Your task to perform on an android device: turn off javascript in the chrome app Image 0: 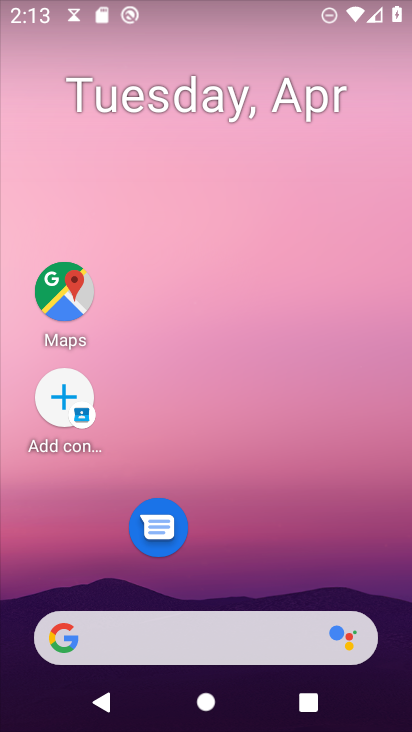
Step 0: drag from (264, 568) to (182, 97)
Your task to perform on an android device: turn off javascript in the chrome app Image 1: 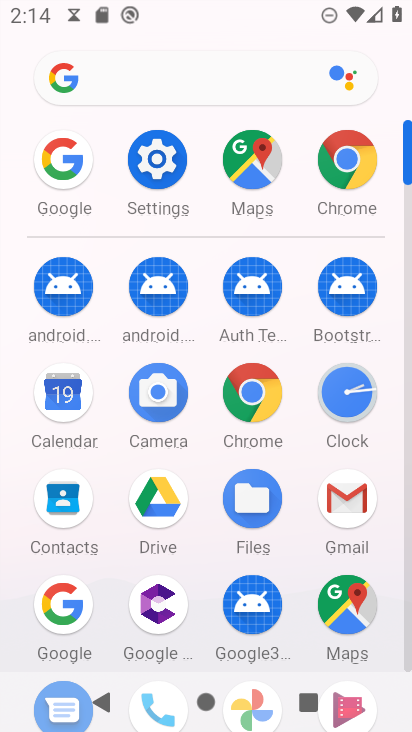
Step 1: click (342, 162)
Your task to perform on an android device: turn off javascript in the chrome app Image 2: 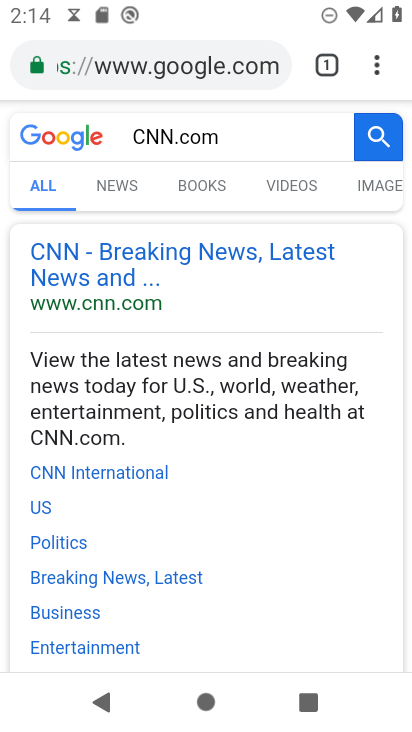
Step 2: click (376, 61)
Your task to perform on an android device: turn off javascript in the chrome app Image 3: 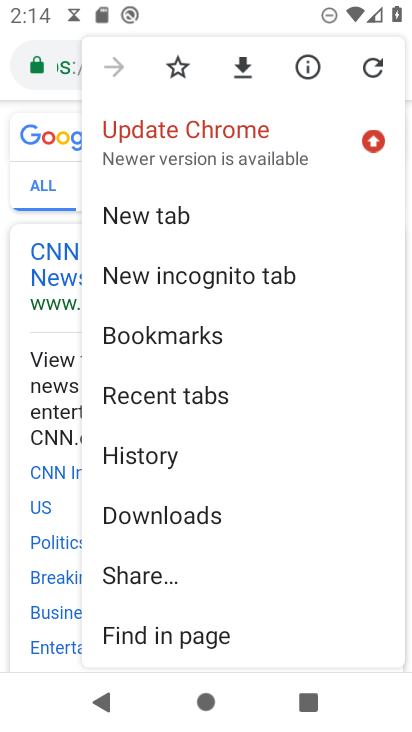
Step 3: drag from (200, 539) to (263, 420)
Your task to perform on an android device: turn off javascript in the chrome app Image 4: 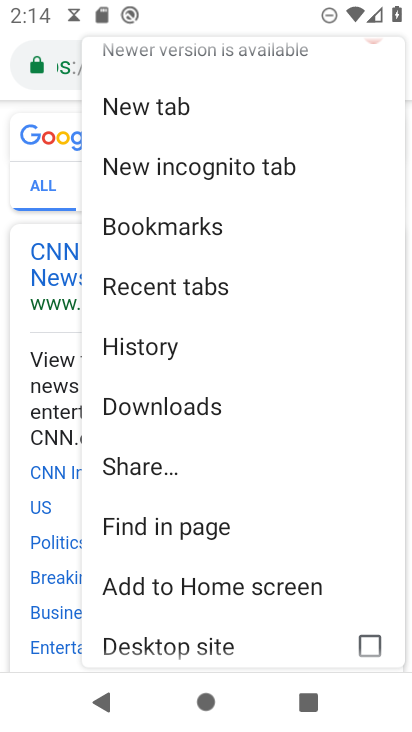
Step 4: drag from (187, 508) to (208, 414)
Your task to perform on an android device: turn off javascript in the chrome app Image 5: 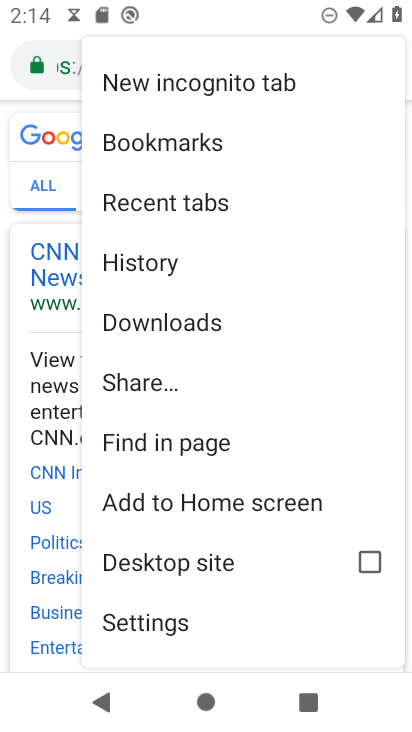
Step 5: drag from (187, 542) to (197, 418)
Your task to perform on an android device: turn off javascript in the chrome app Image 6: 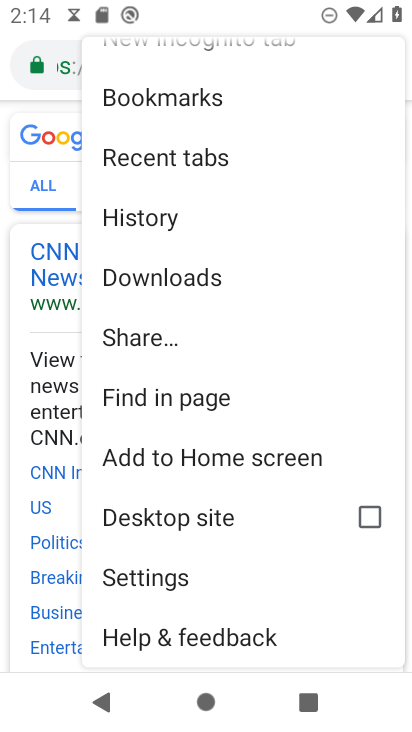
Step 6: click (161, 572)
Your task to perform on an android device: turn off javascript in the chrome app Image 7: 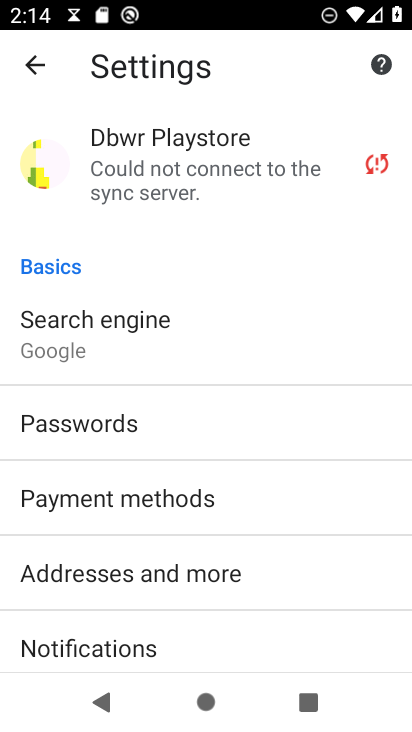
Step 7: drag from (153, 543) to (190, 401)
Your task to perform on an android device: turn off javascript in the chrome app Image 8: 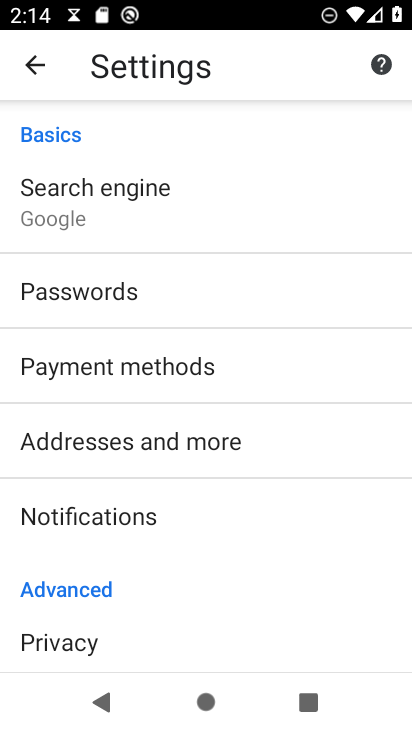
Step 8: drag from (162, 525) to (188, 432)
Your task to perform on an android device: turn off javascript in the chrome app Image 9: 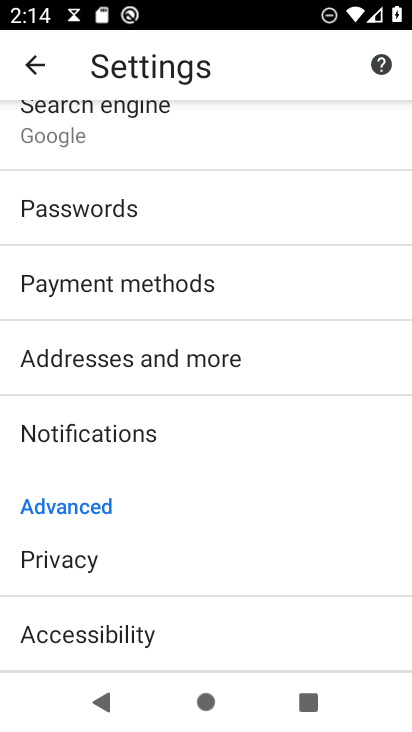
Step 9: drag from (160, 522) to (178, 434)
Your task to perform on an android device: turn off javascript in the chrome app Image 10: 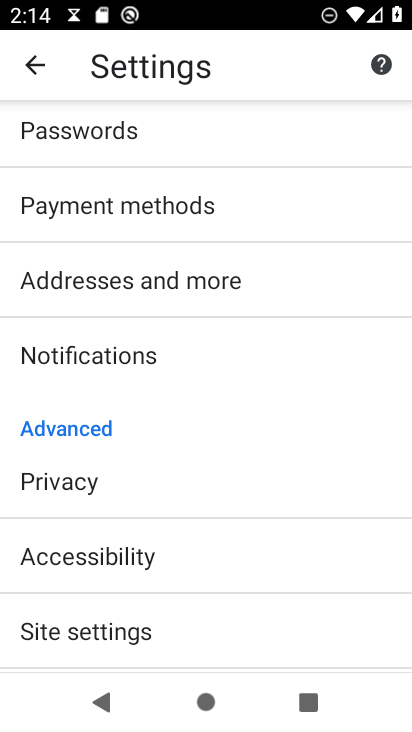
Step 10: drag from (129, 502) to (162, 425)
Your task to perform on an android device: turn off javascript in the chrome app Image 11: 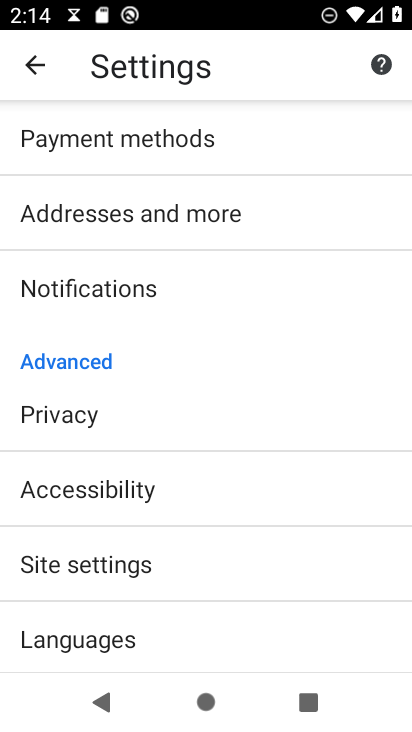
Step 11: click (97, 567)
Your task to perform on an android device: turn off javascript in the chrome app Image 12: 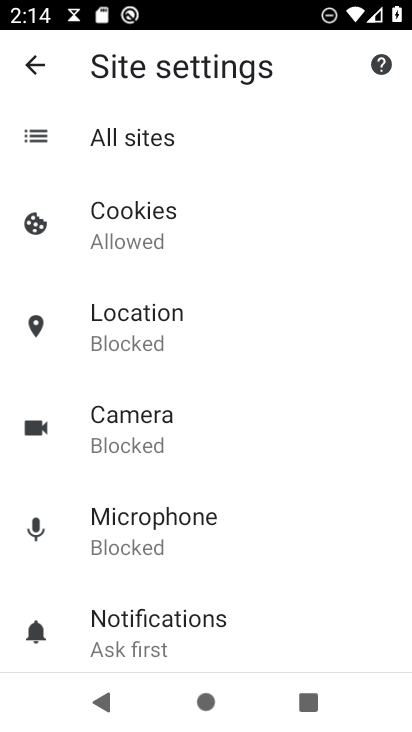
Step 12: drag from (158, 565) to (169, 420)
Your task to perform on an android device: turn off javascript in the chrome app Image 13: 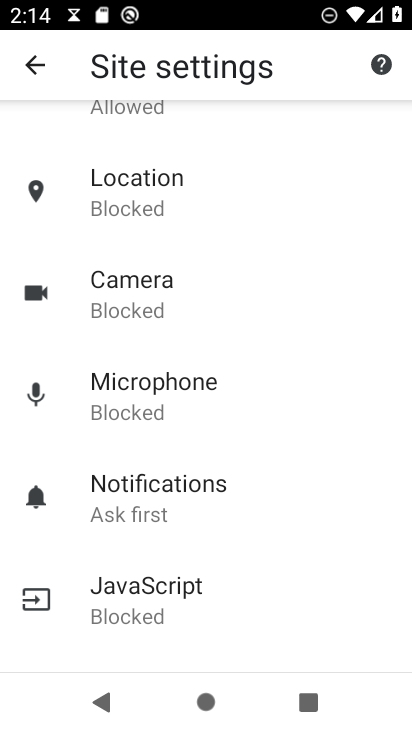
Step 13: drag from (159, 556) to (189, 422)
Your task to perform on an android device: turn off javascript in the chrome app Image 14: 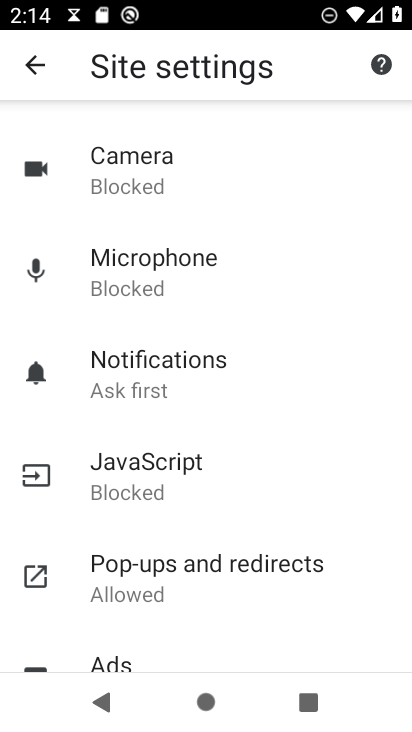
Step 14: click (178, 468)
Your task to perform on an android device: turn off javascript in the chrome app Image 15: 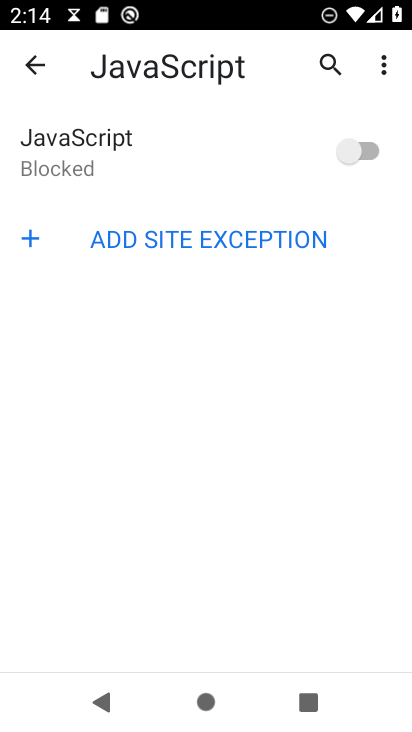
Step 15: task complete